Your task to perform on an android device: turn pop-ups on in chrome Image 0: 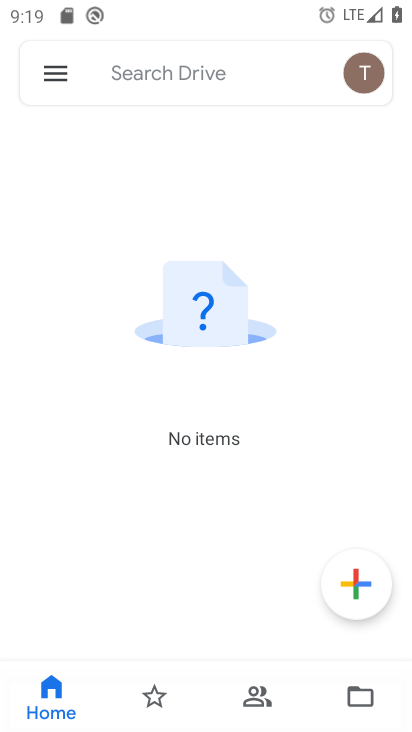
Step 0: press home button
Your task to perform on an android device: turn pop-ups on in chrome Image 1: 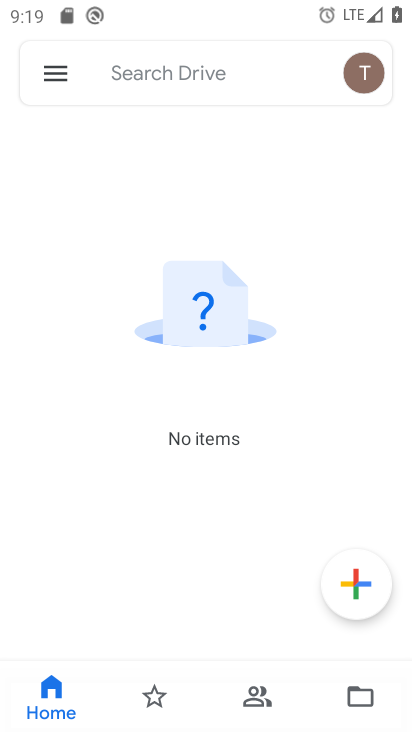
Step 1: press home button
Your task to perform on an android device: turn pop-ups on in chrome Image 2: 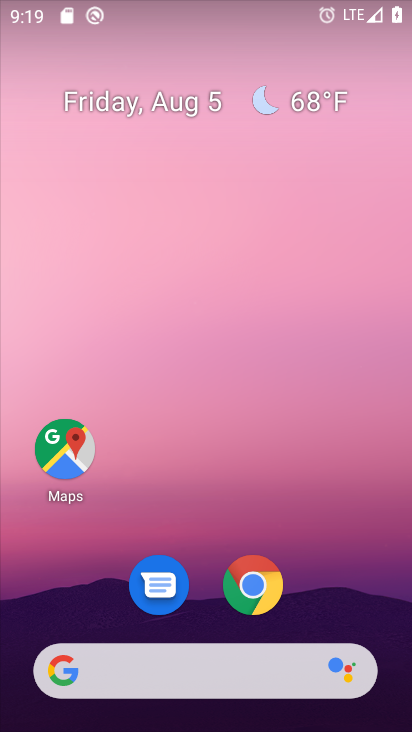
Step 2: click (264, 582)
Your task to perform on an android device: turn pop-ups on in chrome Image 3: 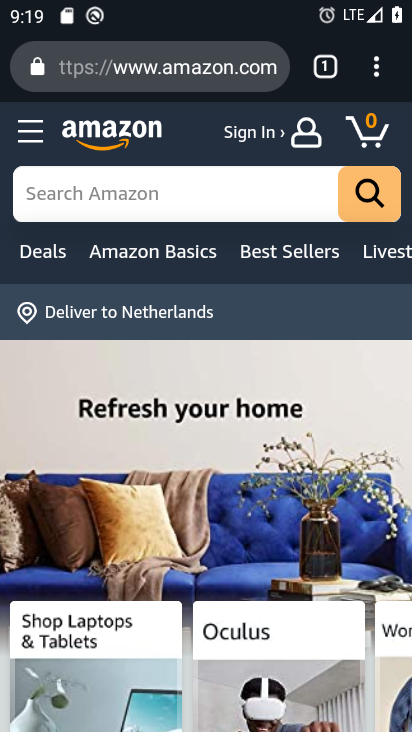
Step 3: press back button
Your task to perform on an android device: turn pop-ups on in chrome Image 4: 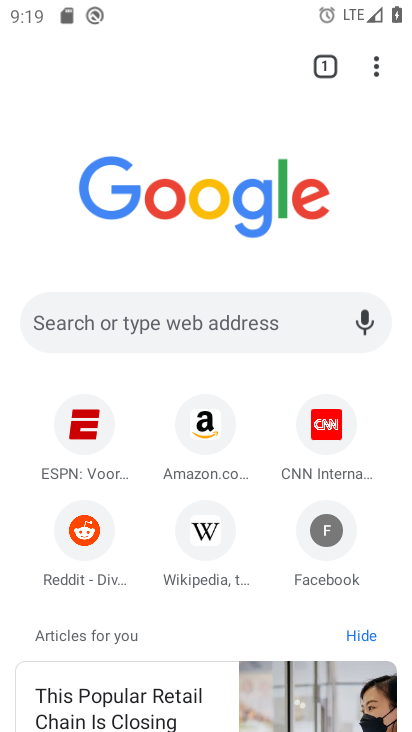
Step 4: click (374, 73)
Your task to perform on an android device: turn pop-ups on in chrome Image 5: 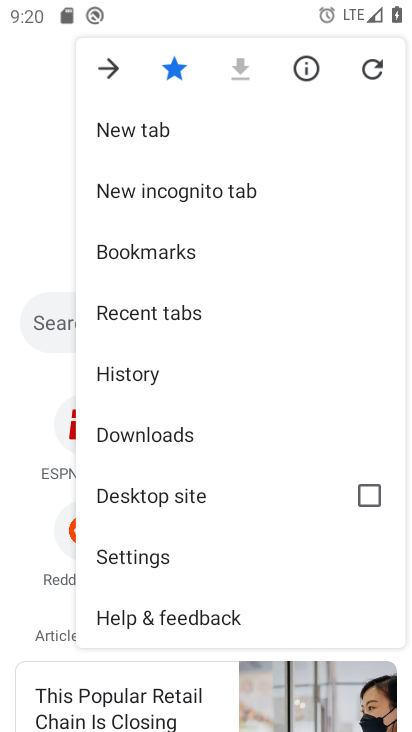
Step 5: click (161, 555)
Your task to perform on an android device: turn pop-ups on in chrome Image 6: 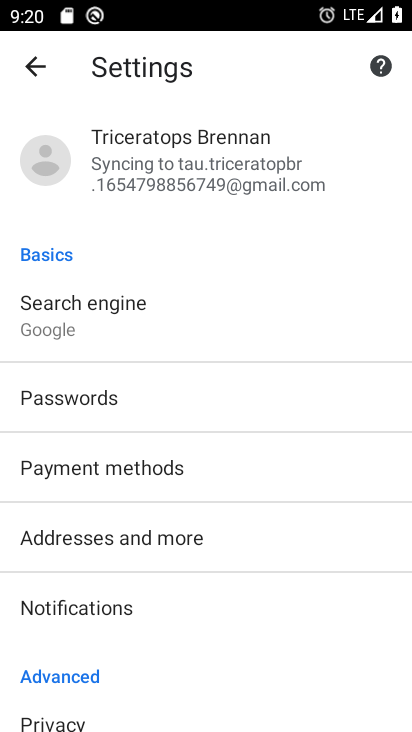
Step 6: drag from (161, 553) to (230, 142)
Your task to perform on an android device: turn pop-ups on in chrome Image 7: 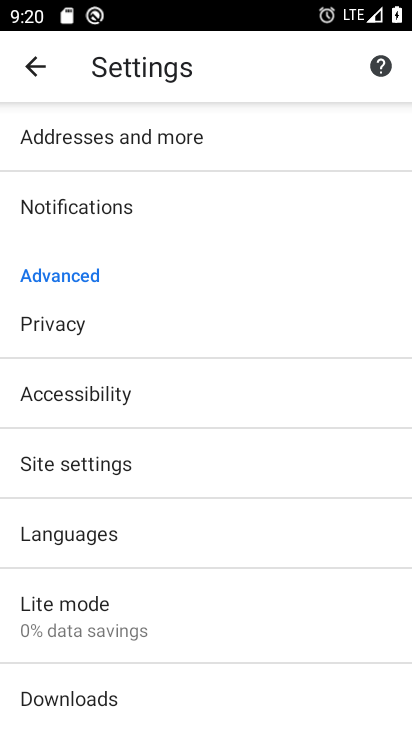
Step 7: click (198, 470)
Your task to perform on an android device: turn pop-ups on in chrome Image 8: 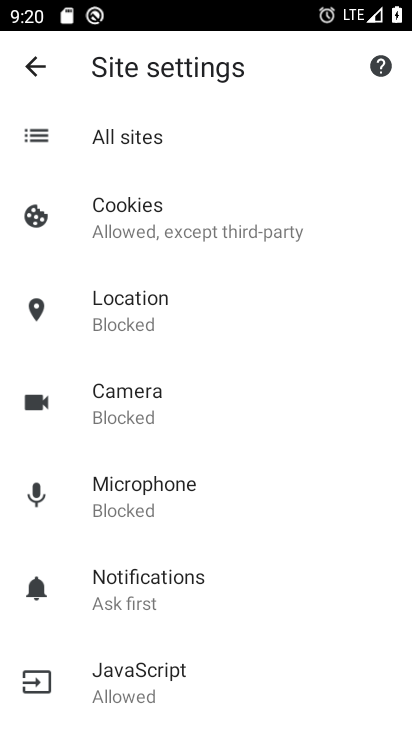
Step 8: drag from (224, 610) to (234, 288)
Your task to perform on an android device: turn pop-ups on in chrome Image 9: 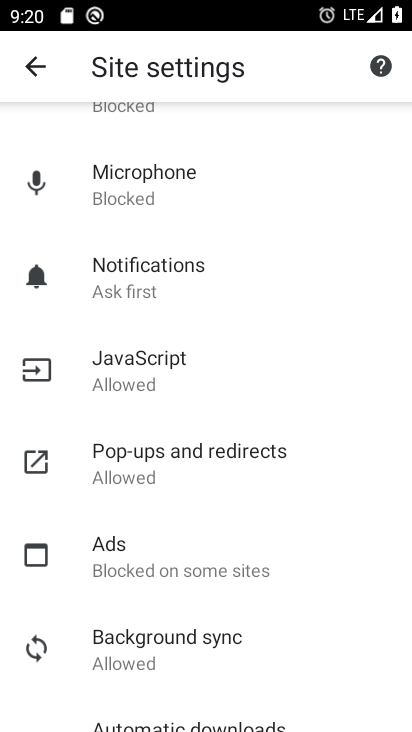
Step 9: click (211, 448)
Your task to perform on an android device: turn pop-ups on in chrome Image 10: 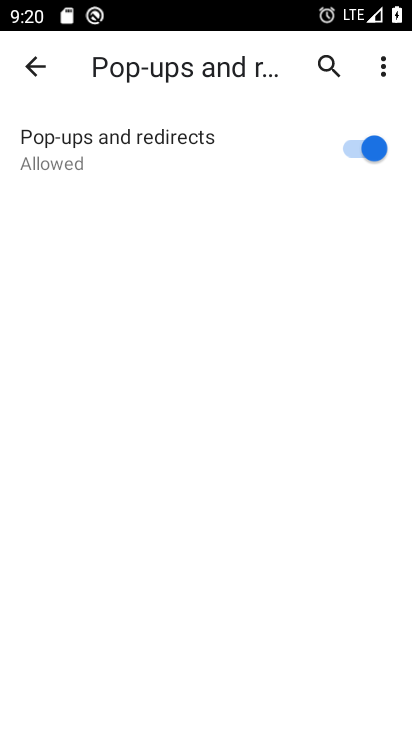
Step 10: task complete